Your task to perform on an android device: change text size in settings app Image 0: 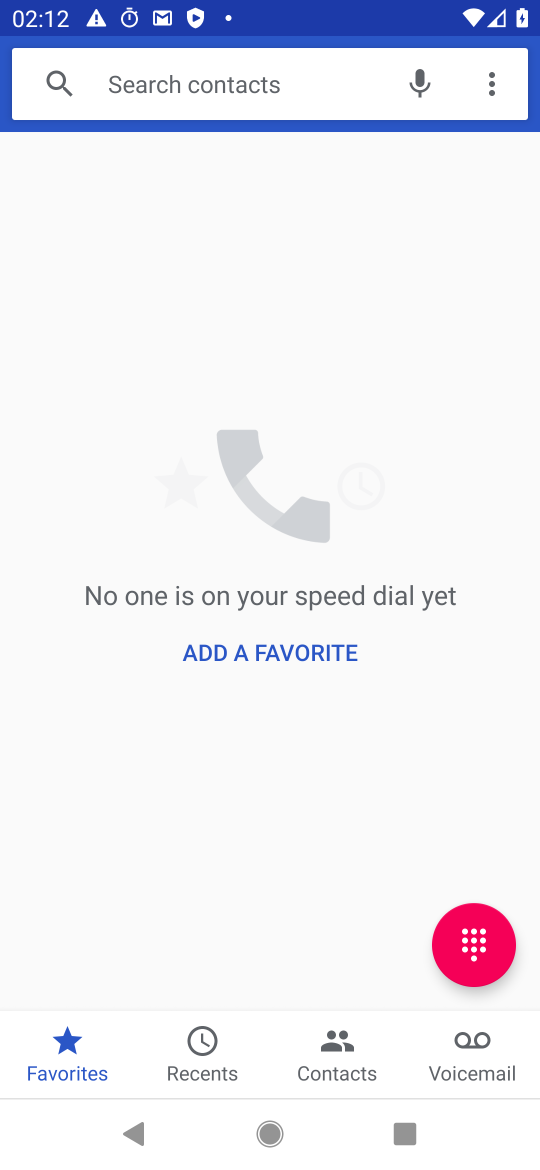
Step 0: press home button
Your task to perform on an android device: change text size in settings app Image 1: 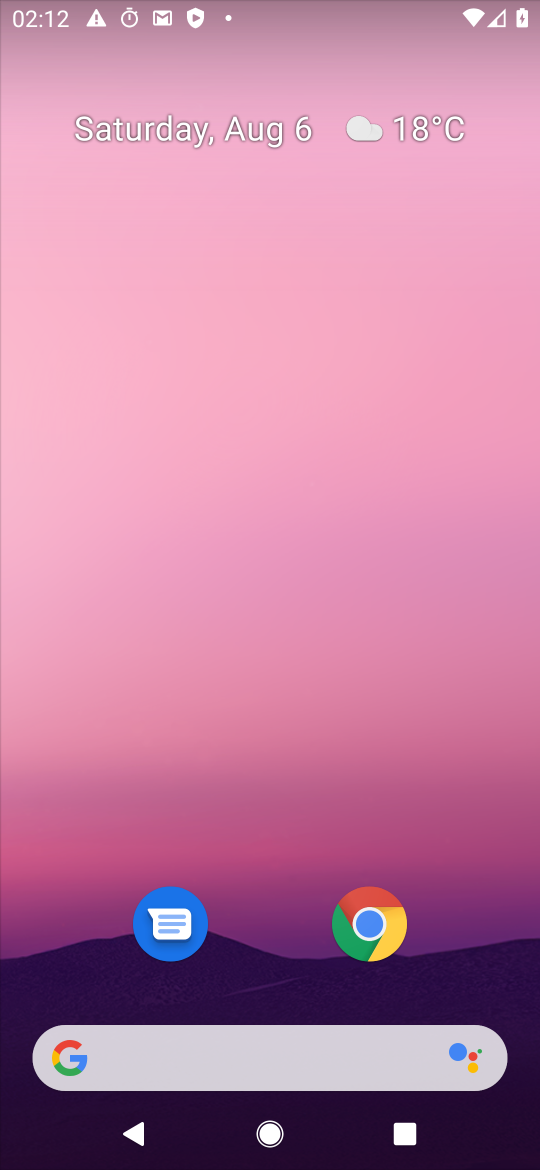
Step 1: drag from (236, 1048) to (345, 389)
Your task to perform on an android device: change text size in settings app Image 2: 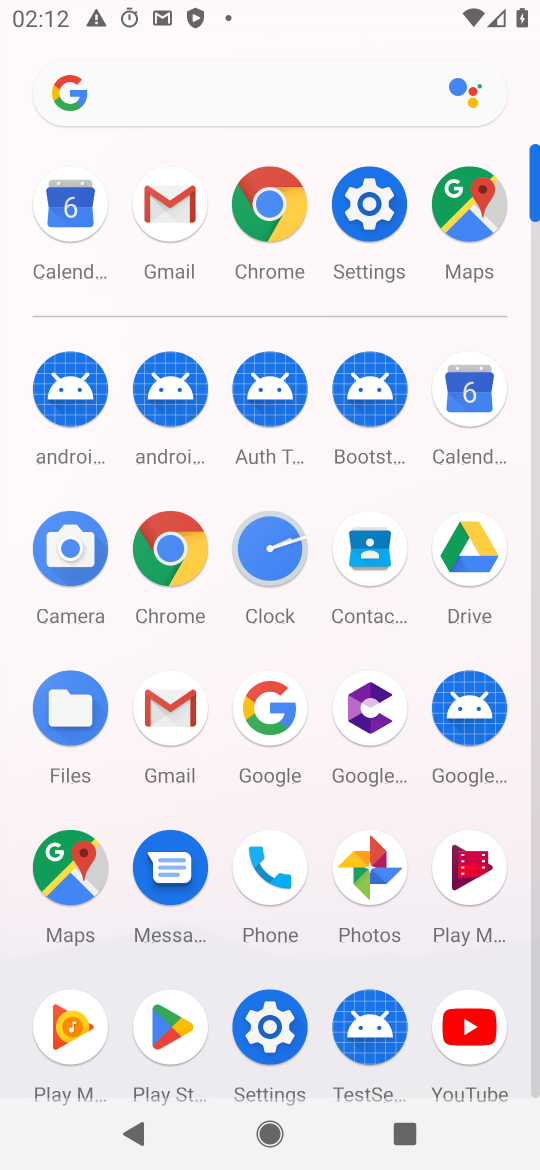
Step 2: click (371, 212)
Your task to perform on an android device: change text size in settings app Image 3: 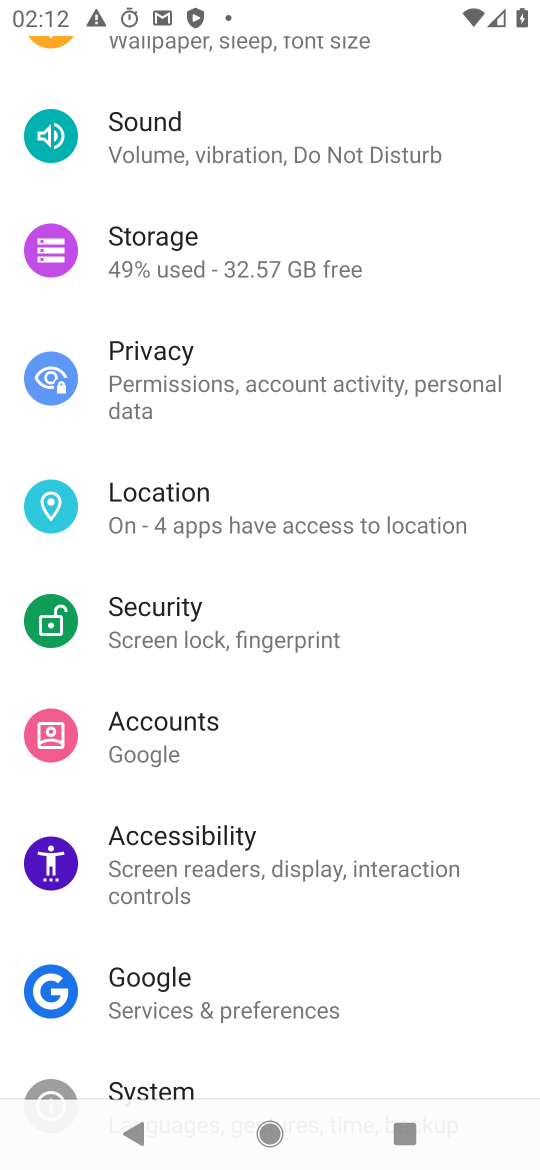
Step 3: drag from (480, 1023) to (386, 638)
Your task to perform on an android device: change text size in settings app Image 4: 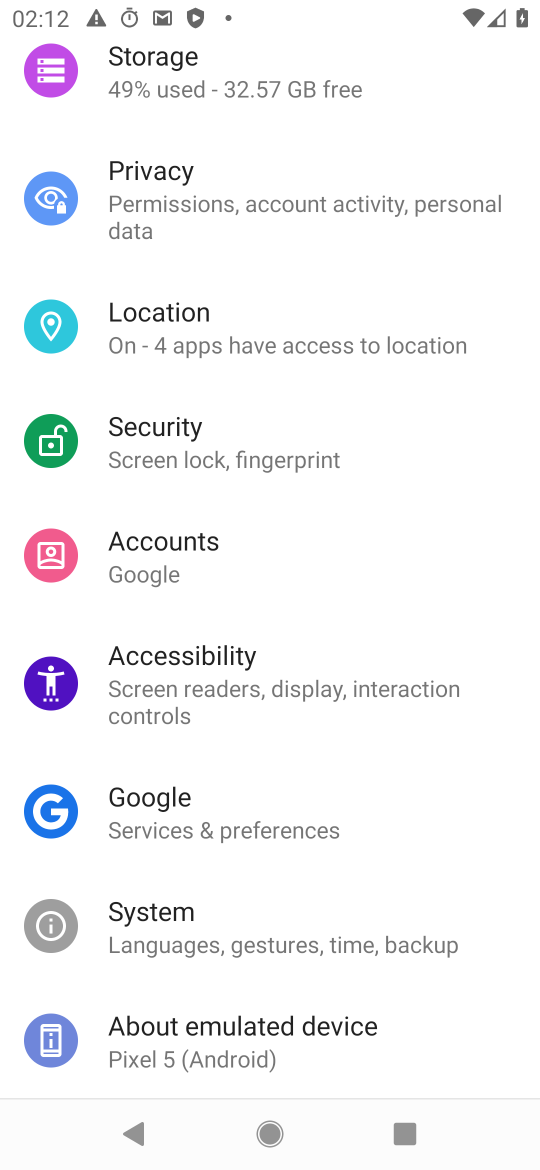
Step 4: click (330, 694)
Your task to perform on an android device: change text size in settings app Image 5: 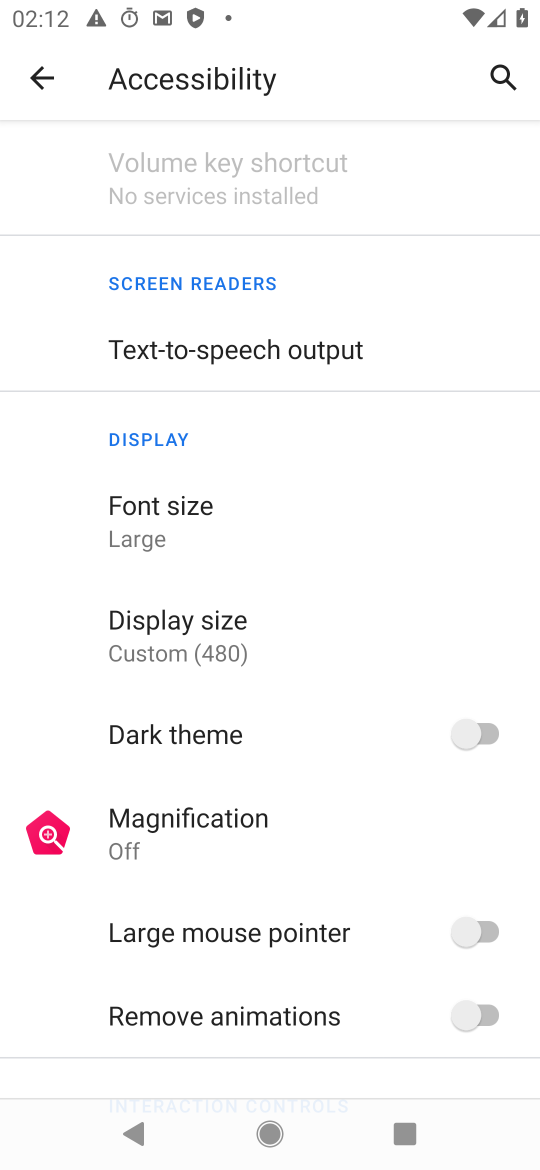
Step 5: click (173, 521)
Your task to perform on an android device: change text size in settings app Image 6: 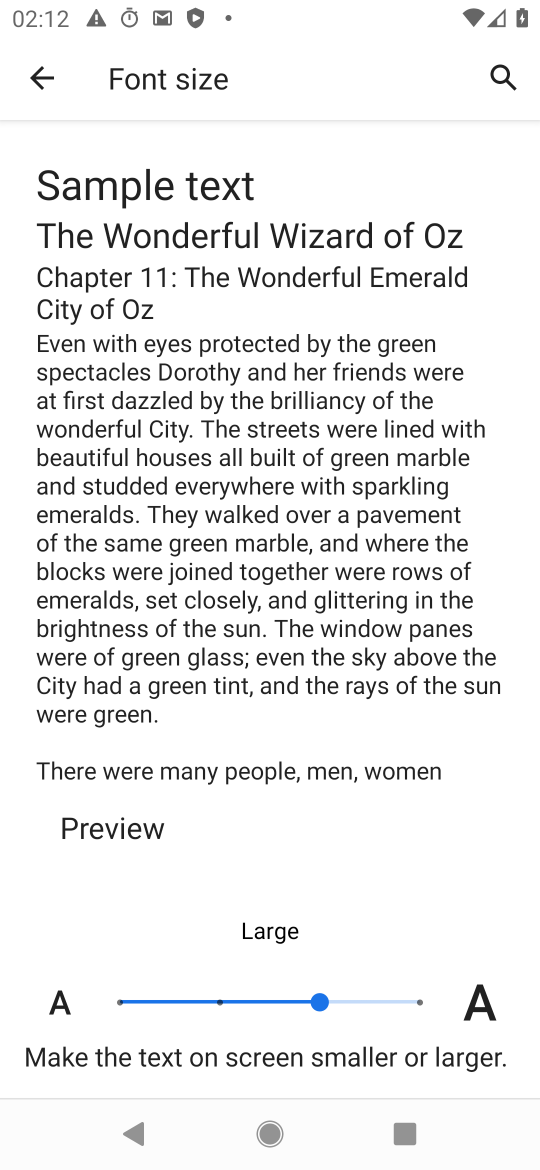
Step 6: click (412, 1002)
Your task to perform on an android device: change text size in settings app Image 7: 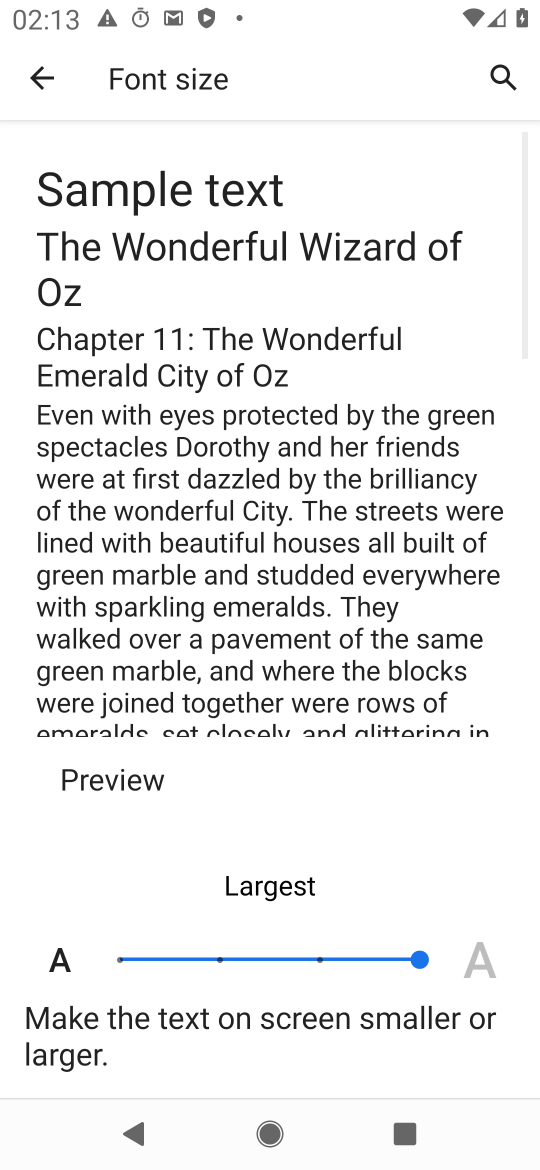
Step 7: task complete